Your task to perform on an android device: turn on data saver in the chrome app Image 0: 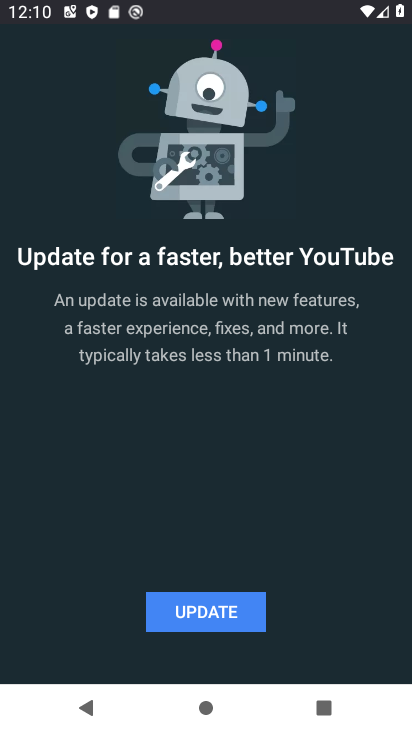
Step 0: press home button
Your task to perform on an android device: turn on data saver in the chrome app Image 1: 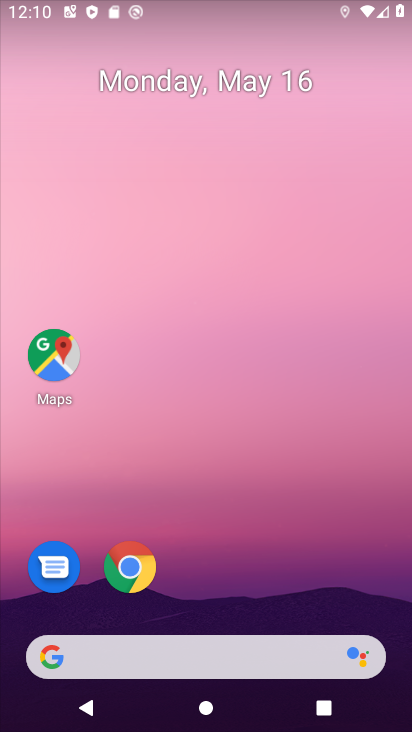
Step 1: click (139, 561)
Your task to perform on an android device: turn on data saver in the chrome app Image 2: 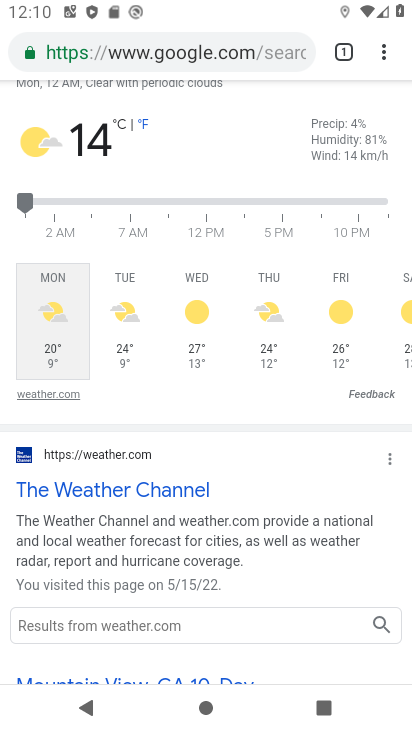
Step 2: drag from (393, 48) to (251, 592)
Your task to perform on an android device: turn on data saver in the chrome app Image 3: 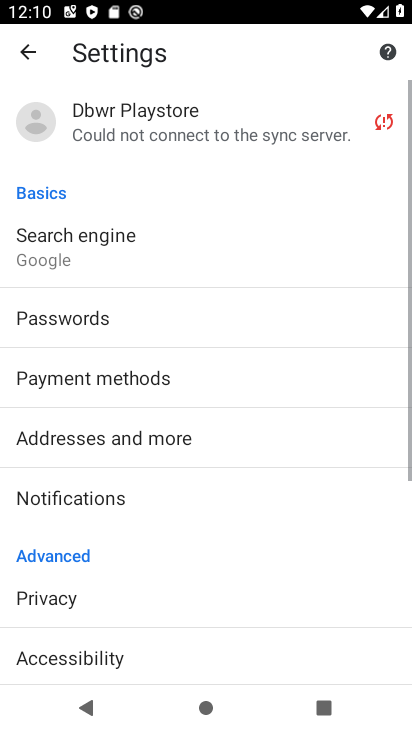
Step 3: drag from (252, 591) to (242, 86)
Your task to perform on an android device: turn on data saver in the chrome app Image 4: 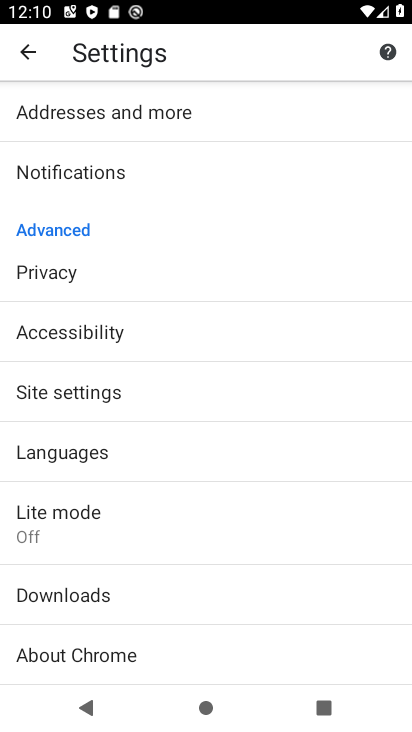
Step 4: click (113, 516)
Your task to perform on an android device: turn on data saver in the chrome app Image 5: 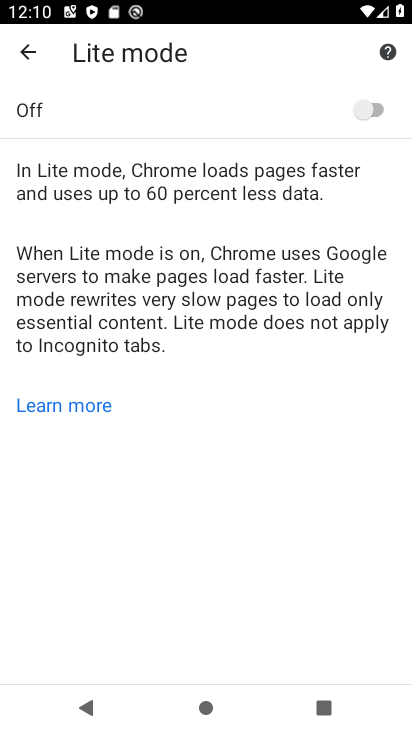
Step 5: click (365, 91)
Your task to perform on an android device: turn on data saver in the chrome app Image 6: 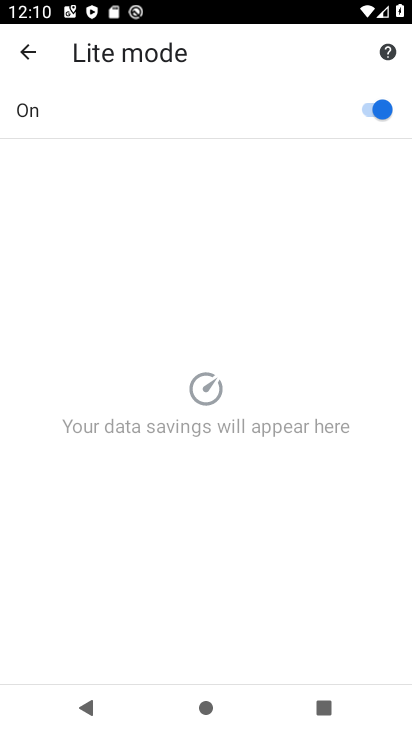
Step 6: task complete